Your task to perform on an android device: Open internet settings Image 0: 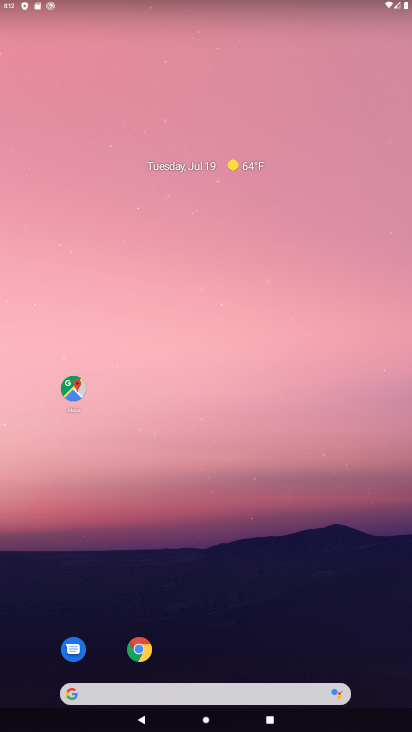
Step 0: drag from (220, 646) to (207, 152)
Your task to perform on an android device: Open internet settings Image 1: 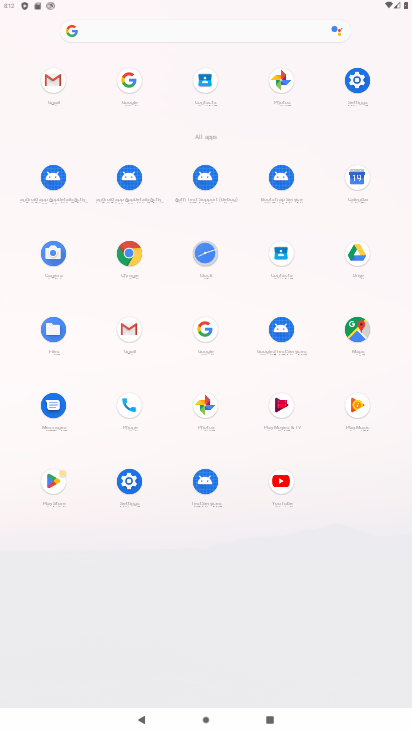
Step 1: click (354, 90)
Your task to perform on an android device: Open internet settings Image 2: 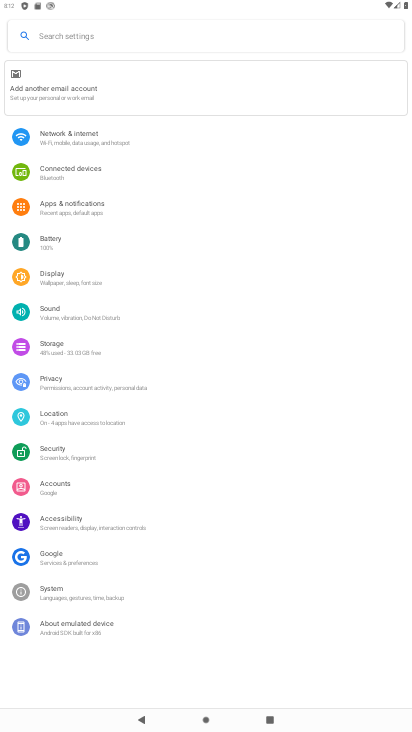
Step 2: click (114, 141)
Your task to perform on an android device: Open internet settings Image 3: 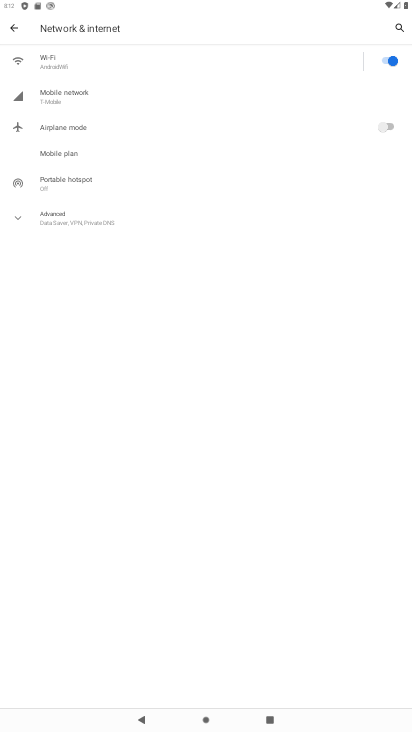
Step 3: task complete